Your task to perform on an android device: Open battery settings Image 0: 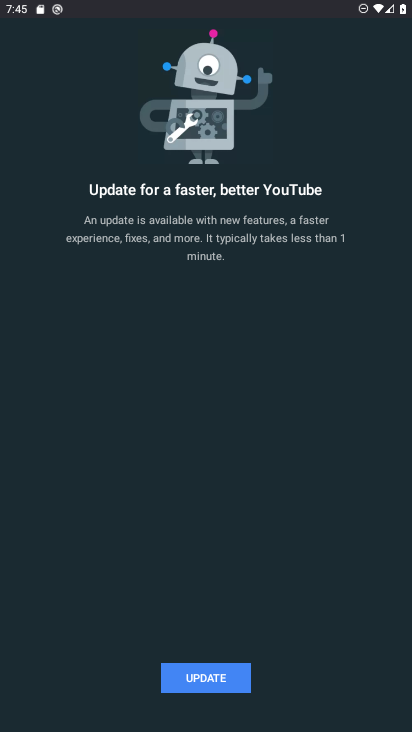
Step 0: press home button
Your task to perform on an android device: Open battery settings Image 1: 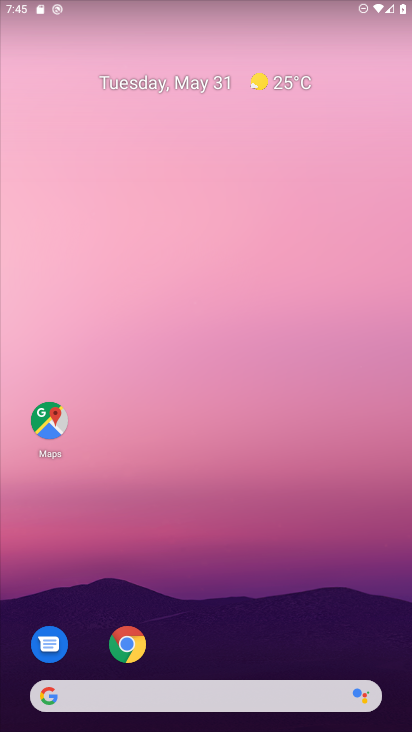
Step 1: drag from (239, 722) to (207, 157)
Your task to perform on an android device: Open battery settings Image 2: 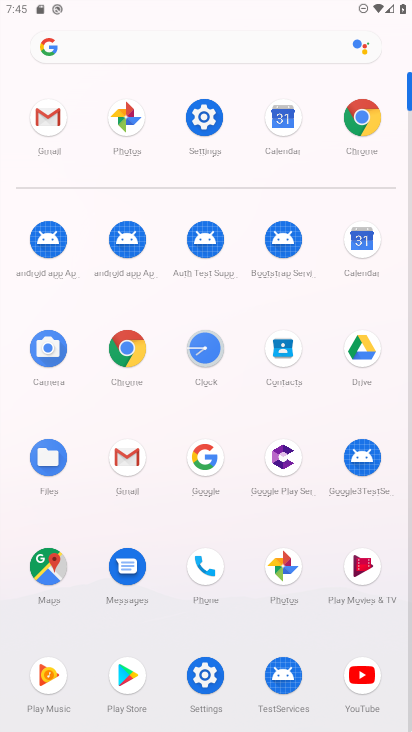
Step 2: click (205, 127)
Your task to perform on an android device: Open battery settings Image 3: 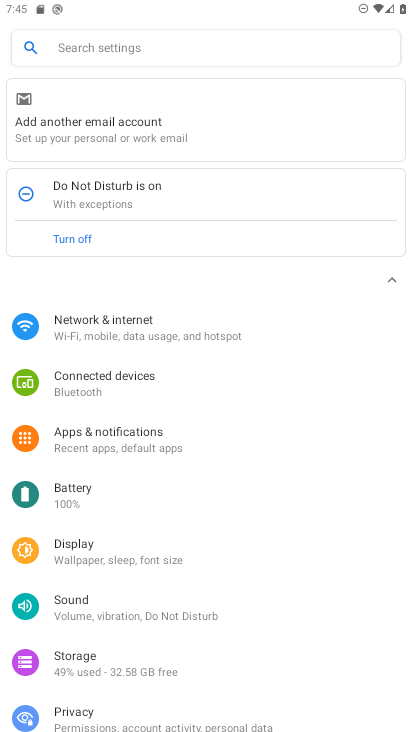
Step 3: click (104, 489)
Your task to perform on an android device: Open battery settings Image 4: 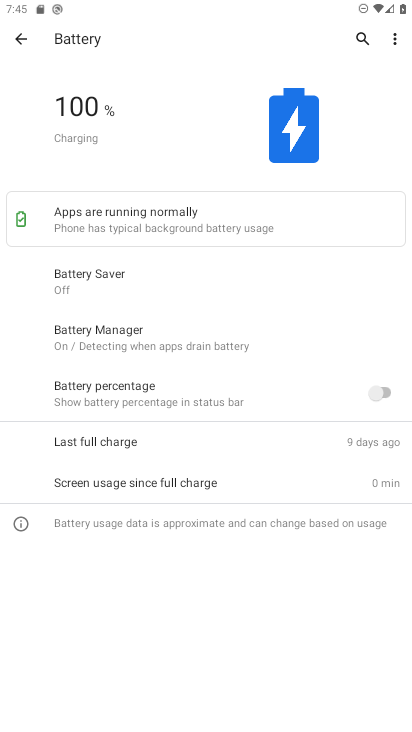
Step 4: task complete